Your task to perform on an android device: set an alarm Image 0: 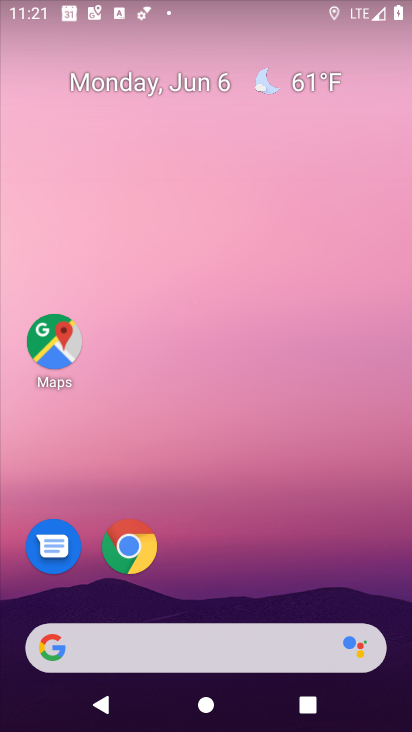
Step 0: drag from (394, 617) to (332, 112)
Your task to perform on an android device: set an alarm Image 1: 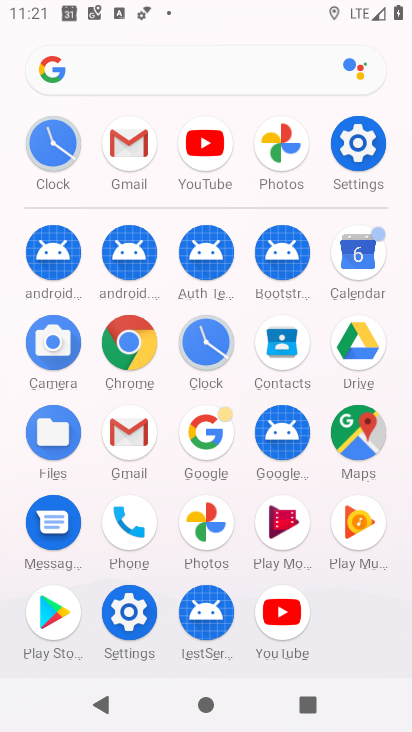
Step 1: click (203, 344)
Your task to perform on an android device: set an alarm Image 2: 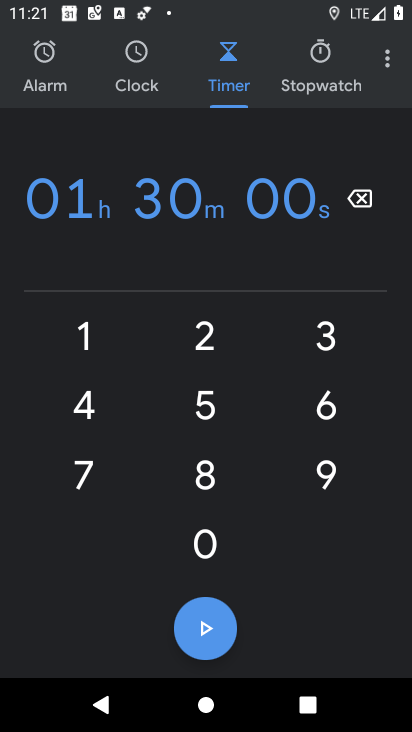
Step 2: click (41, 58)
Your task to perform on an android device: set an alarm Image 3: 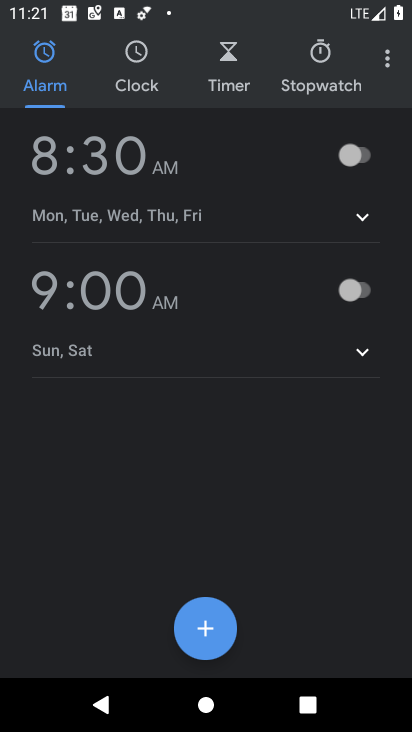
Step 3: task complete